Your task to perform on an android device: turn off notifications in google photos Image 0: 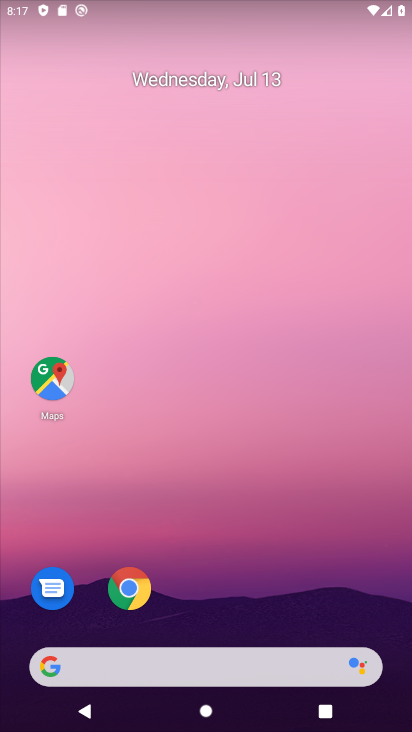
Step 0: drag from (256, 635) to (232, 178)
Your task to perform on an android device: turn off notifications in google photos Image 1: 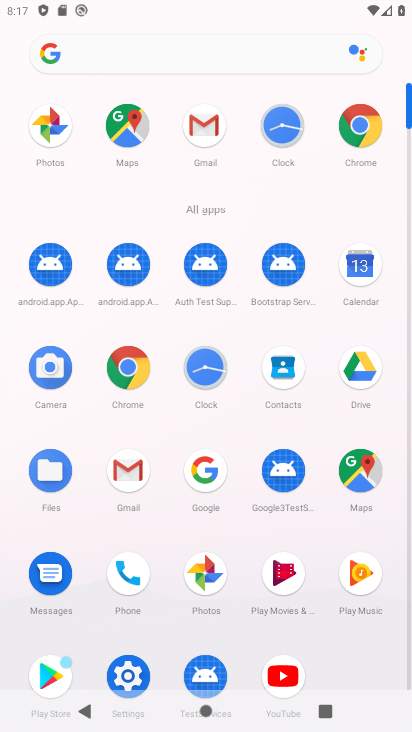
Step 1: click (39, 133)
Your task to perform on an android device: turn off notifications in google photos Image 2: 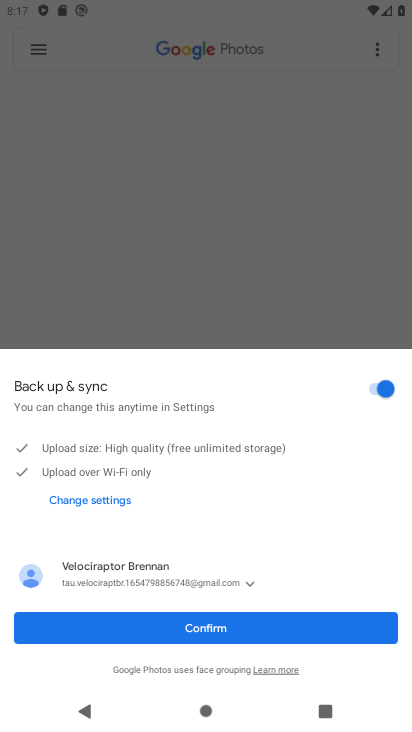
Step 2: click (262, 624)
Your task to perform on an android device: turn off notifications in google photos Image 3: 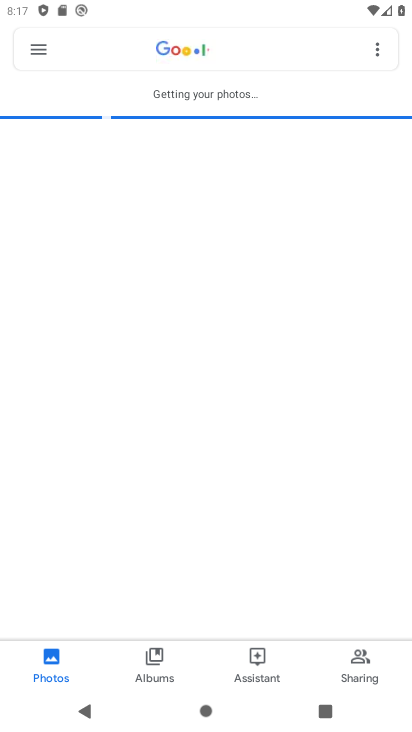
Step 3: click (34, 54)
Your task to perform on an android device: turn off notifications in google photos Image 4: 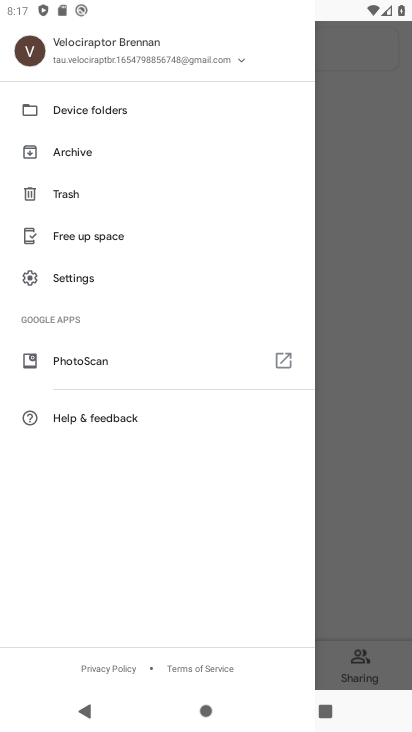
Step 4: click (87, 280)
Your task to perform on an android device: turn off notifications in google photos Image 5: 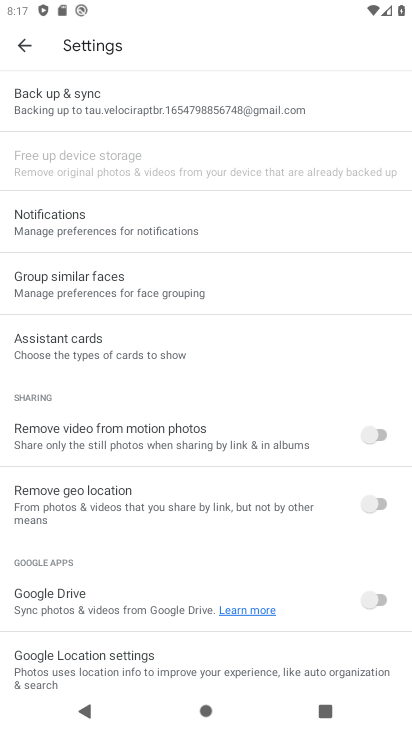
Step 5: click (97, 229)
Your task to perform on an android device: turn off notifications in google photos Image 6: 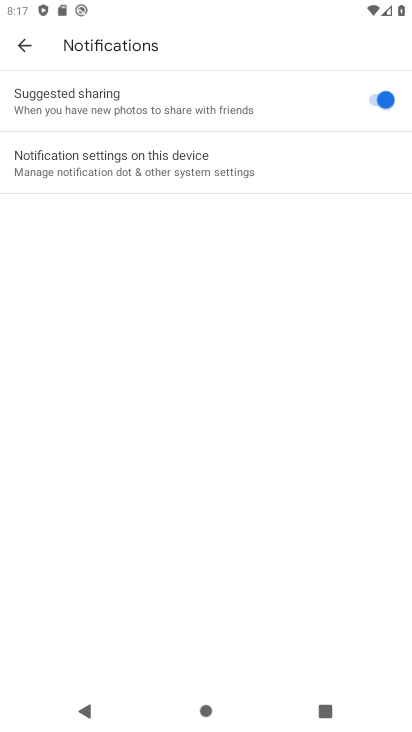
Step 6: click (138, 165)
Your task to perform on an android device: turn off notifications in google photos Image 7: 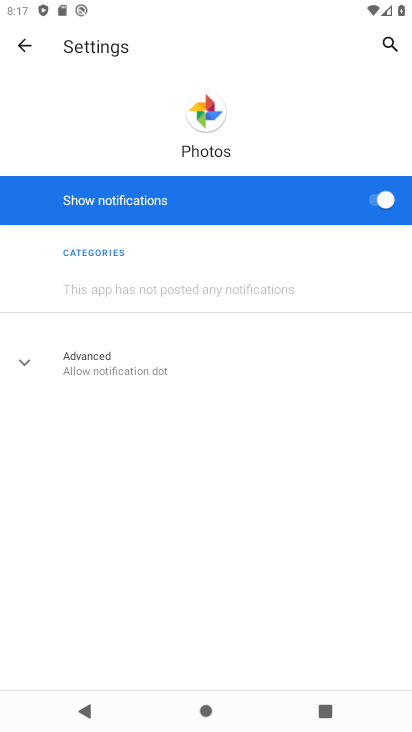
Step 7: click (380, 209)
Your task to perform on an android device: turn off notifications in google photos Image 8: 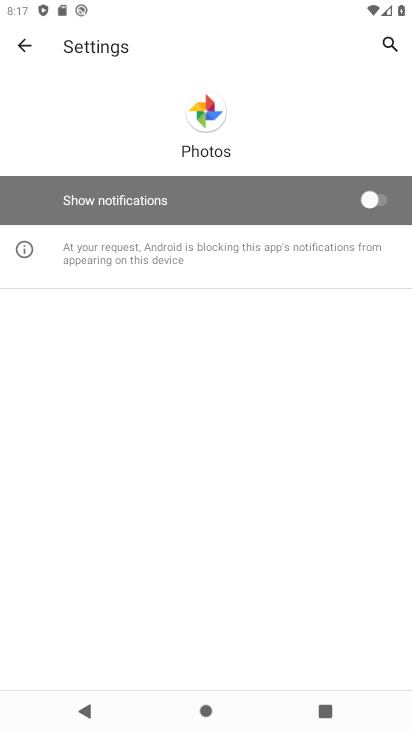
Step 8: task complete